Your task to perform on an android device: toggle notifications settings in the gmail app Image 0: 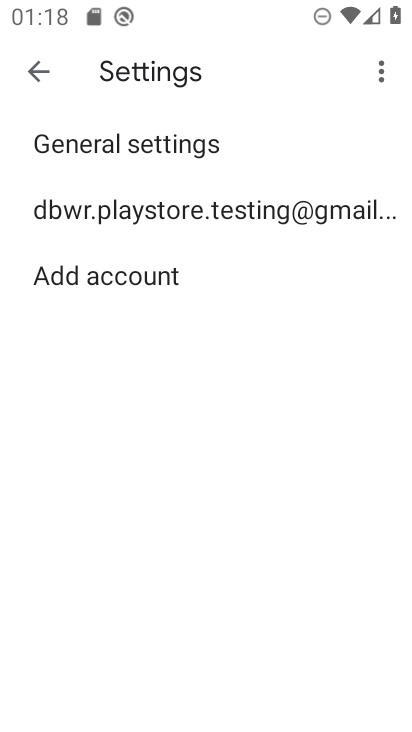
Step 0: click (41, 69)
Your task to perform on an android device: toggle notifications settings in the gmail app Image 1: 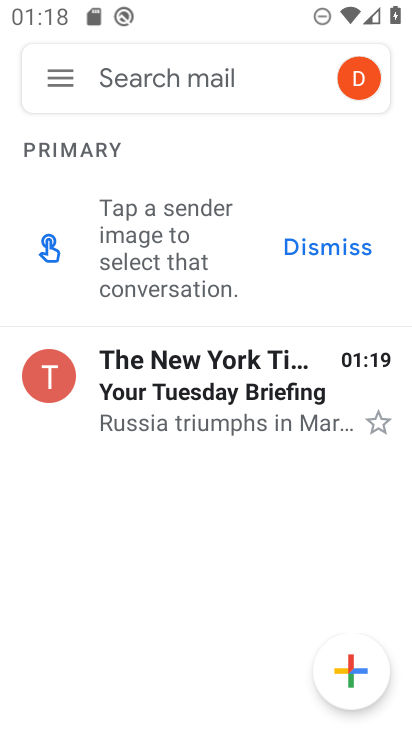
Step 1: click (58, 81)
Your task to perform on an android device: toggle notifications settings in the gmail app Image 2: 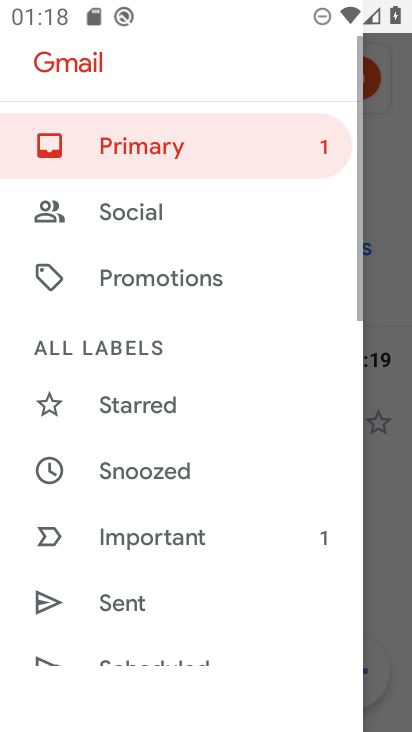
Step 2: drag from (190, 609) to (155, 58)
Your task to perform on an android device: toggle notifications settings in the gmail app Image 3: 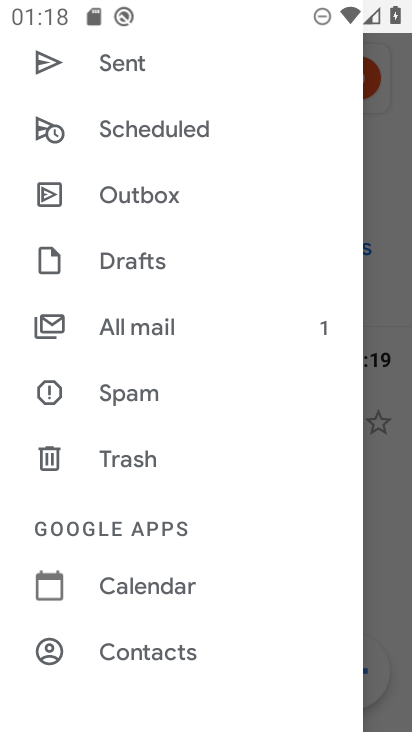
Step 3: drag from (192, 560) to (213, 201)
Your task to perform on an android device: toggle notifications settings in the gmail app Image 4: 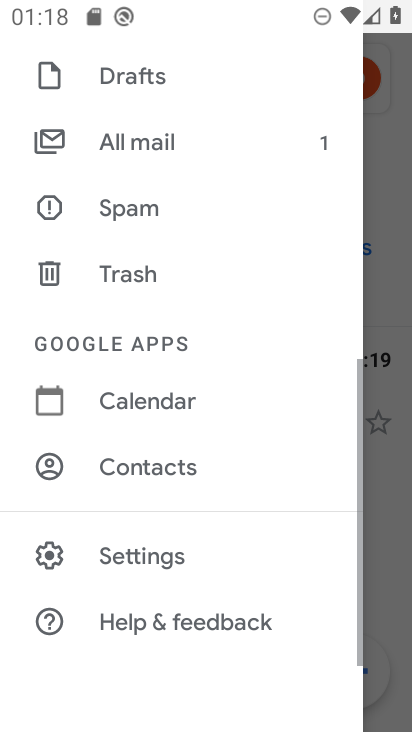
Step 4: click (129, 622)
Your task to perform on an android device: toggle notifications settings in the gmail app Image 5: 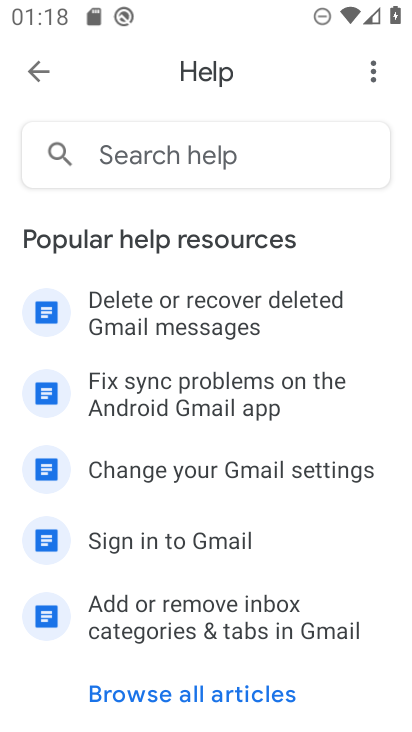
Step 5: click (35, 77)
Your task to perform on an android device: toggle notifications settings in the gmail app Image 6: 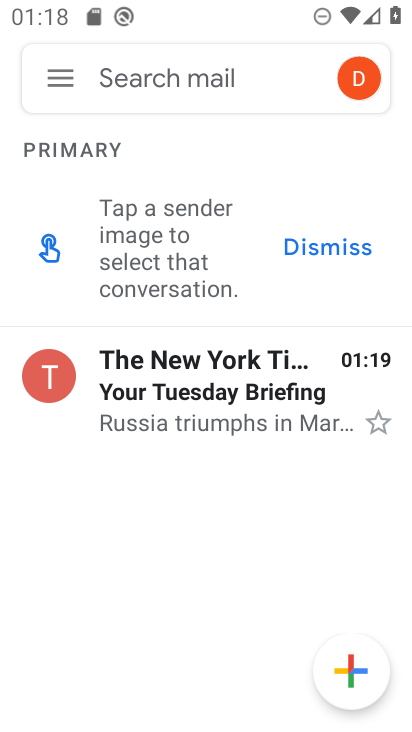
Step 6: click (64, 85)
Your task to perform on an android device: toggle notifications settings in the gmail app Image 7: 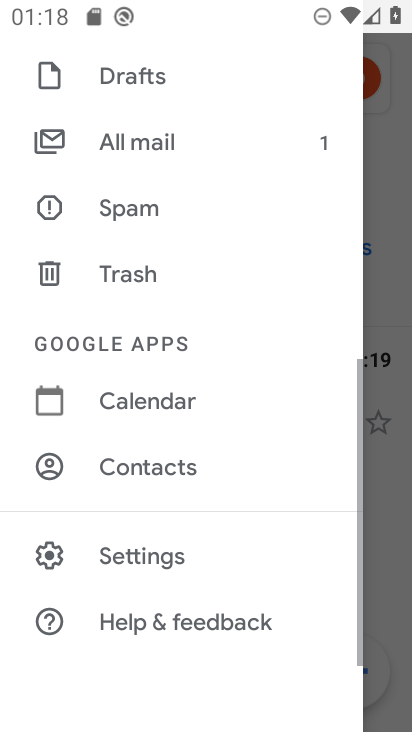
Step 7: drag from (200, 534) to (196, 309)
Your task to perform on an android device: toggle notifications settings in the gmail app Image 8: 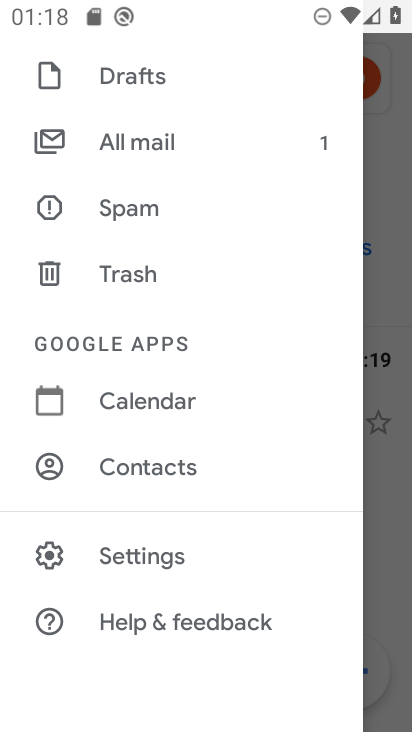
Step 8: click (174, 551)
Your task to perform on an android device: toggle notifications settings in the gmail app Image 9: 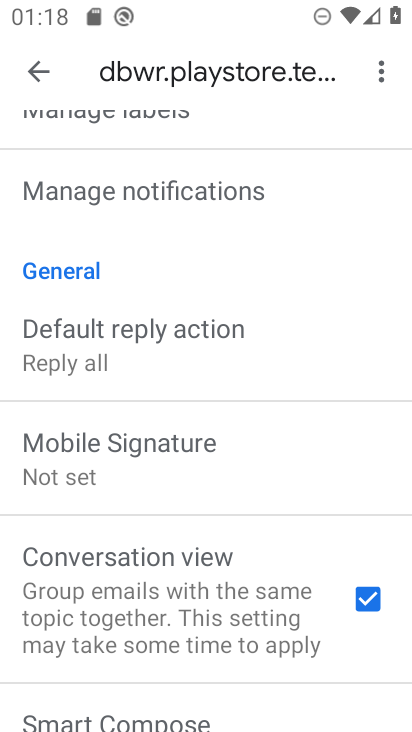
Step 9: click (159, 190)
Your task to perform on an android device: toggle notifications settings in the gmail app Image 10: 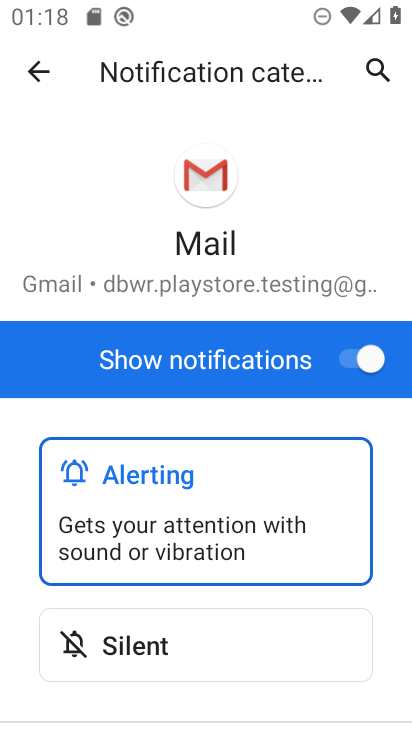
Step 10: click (363, 363)
Your task to perform on an android device: toggle notifications settings in the gmail app Image 11: 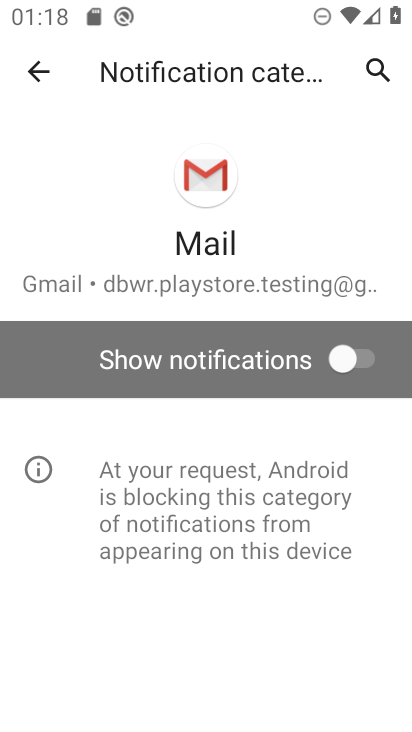
Step 11: task complete